Your task to perform on an android device: open app "Airtel Thanks" Image 0: 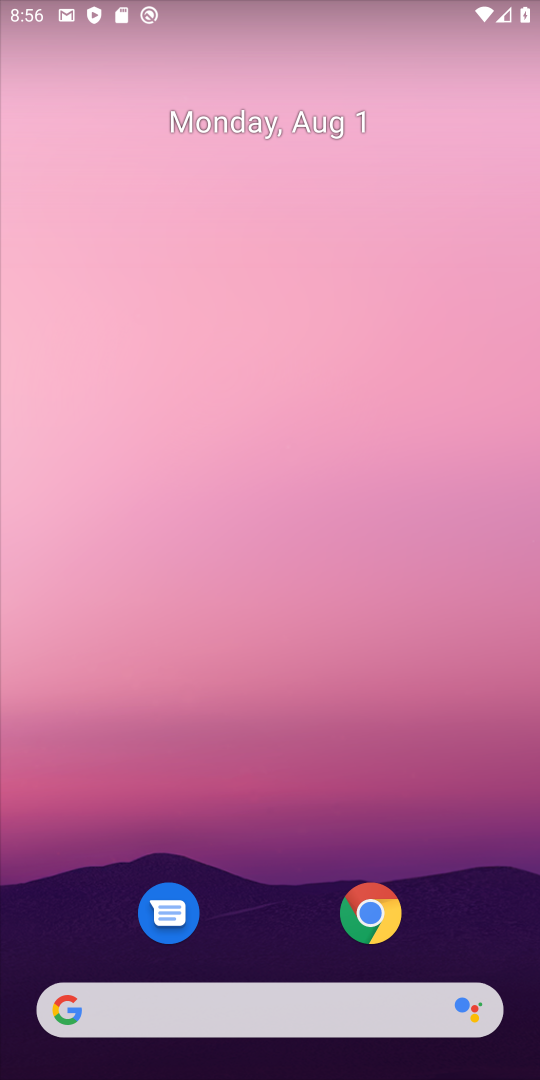
Step 0: press home button
Your task to perform on an android device: open app "Airtel Thanks" Image 1: 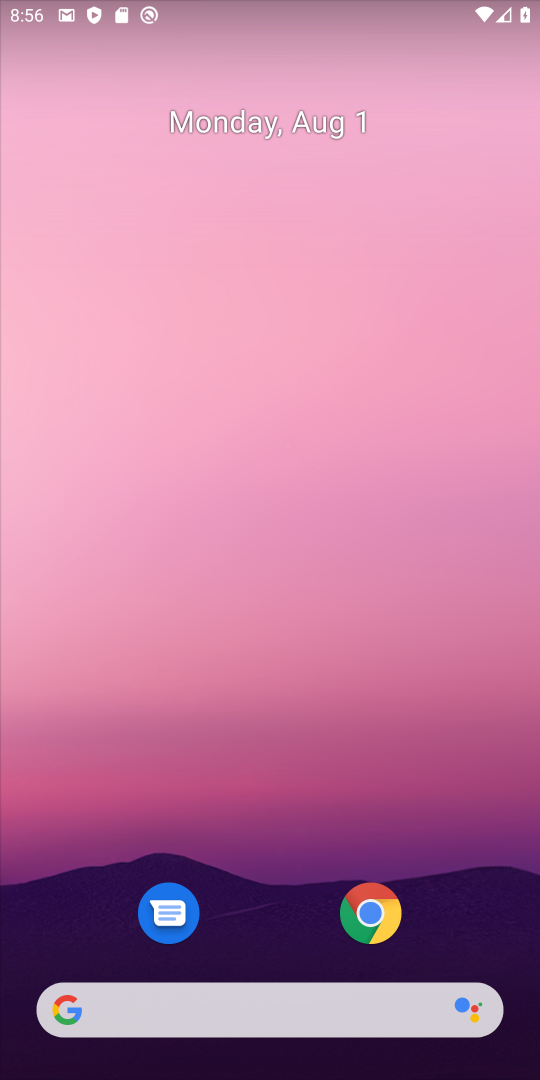
Step 1: drag from (260, 928) to (231, 236)
Your task to perform on an android device: open app "Airtel Thanks" Image 2: 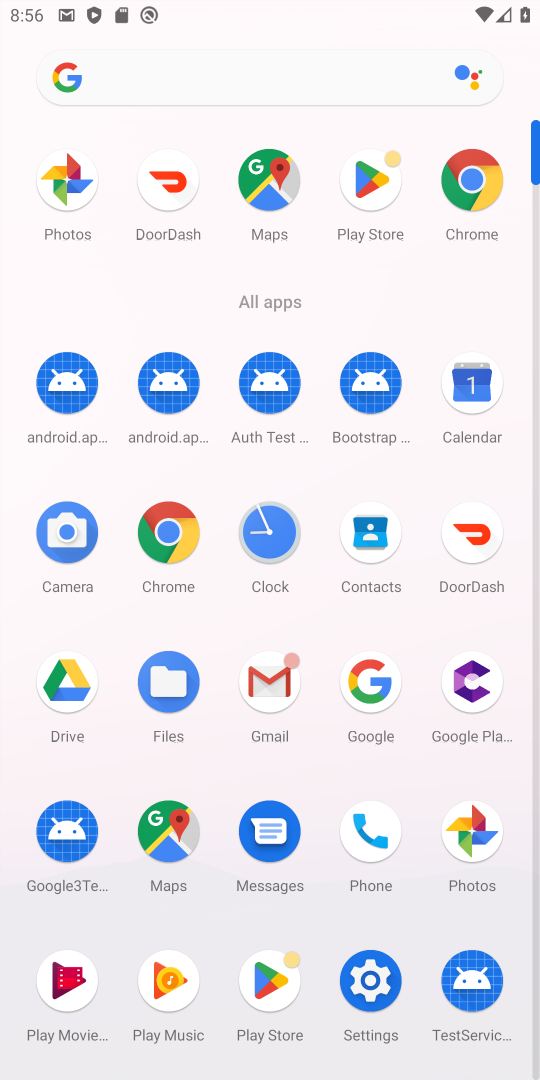
Step 2: click (370, 196)
Your task to perform on an android device: open app "Airtel Thanks" Image 3: 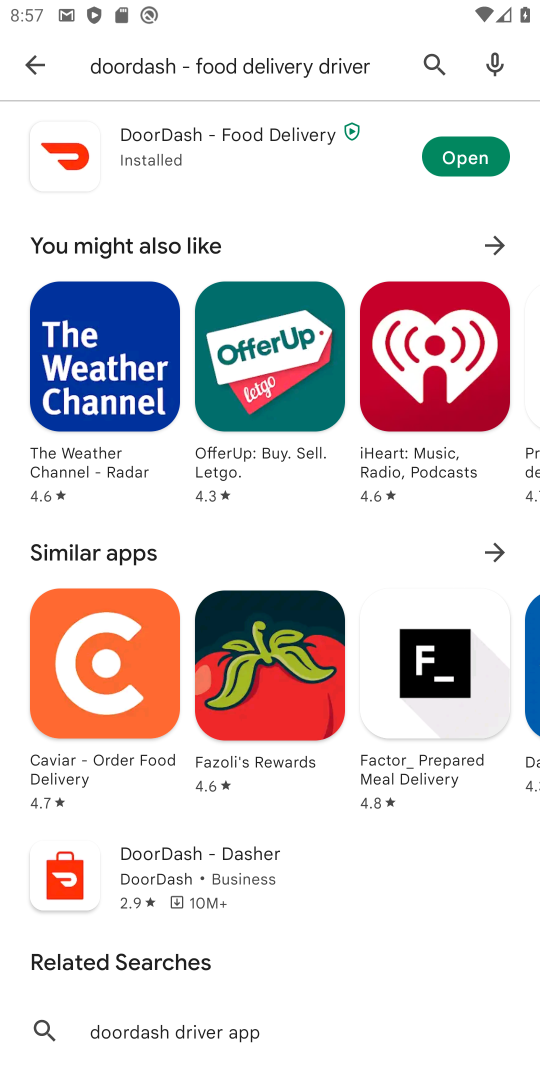
Step 3: click (443, 58)
Your task to perform on an android device: open app "Airtel Thanks" Image 4: 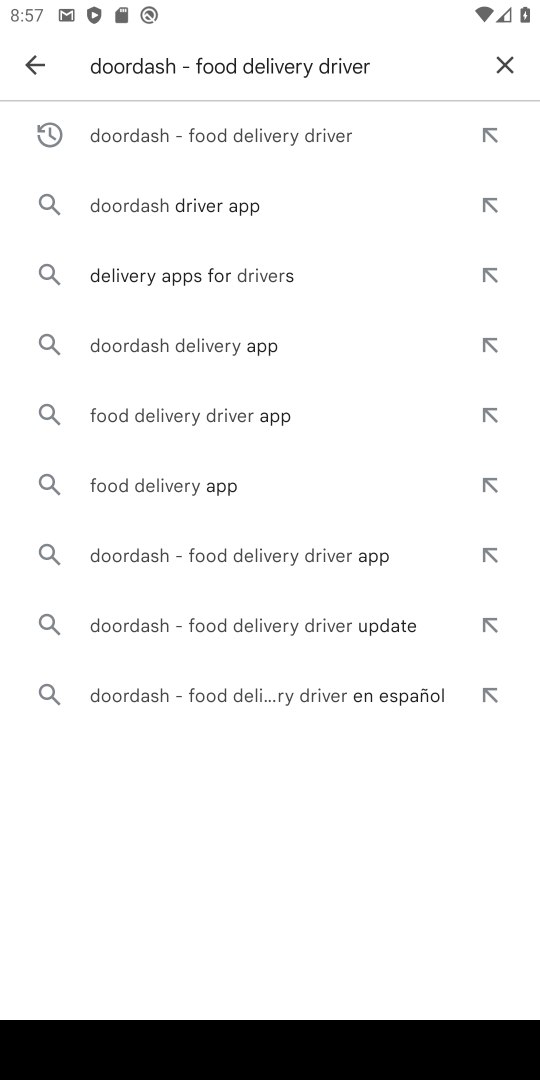
Step 4: click (511, 57)
Your task to perform on an android device: open app "Airtel Thanks" Image 5: 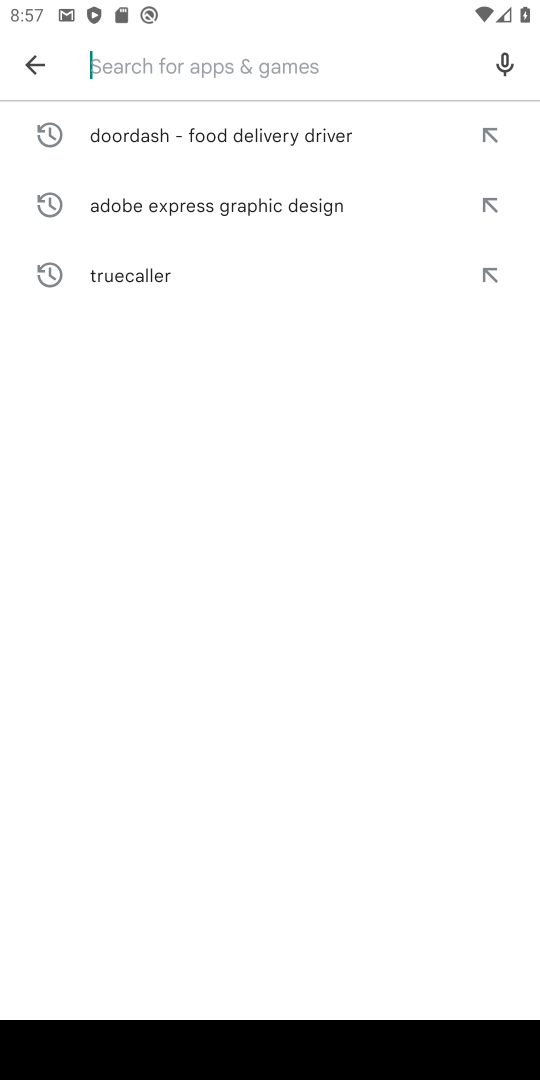
Step 5: type "Airtel Thanks"
Your task to perform on an android device: open app "Airtel Thanks" Image 6: 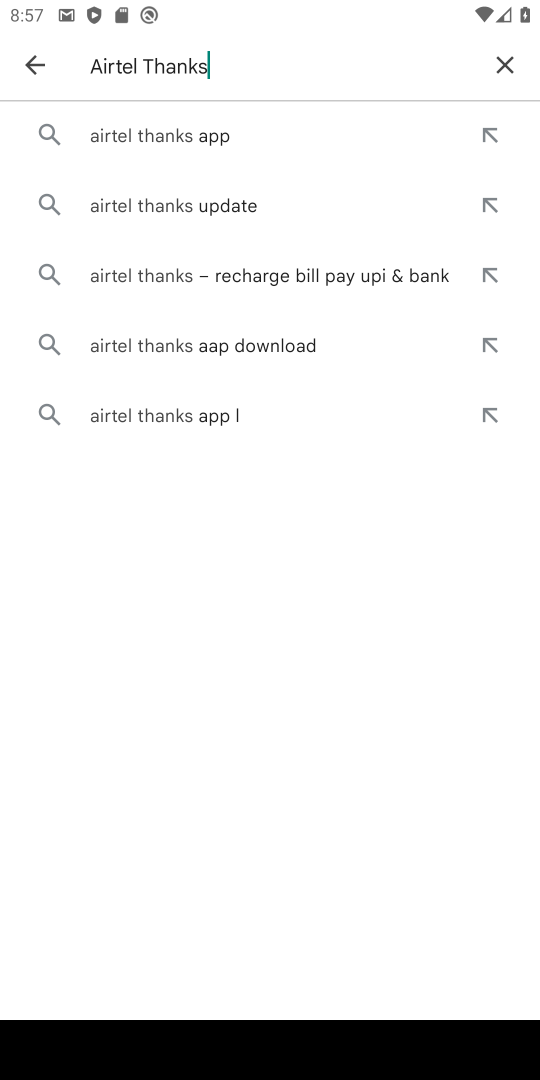
Step 6: click (178, 138)
Your task to perform on an android device: open app "Airtel Thanks" Image 7: 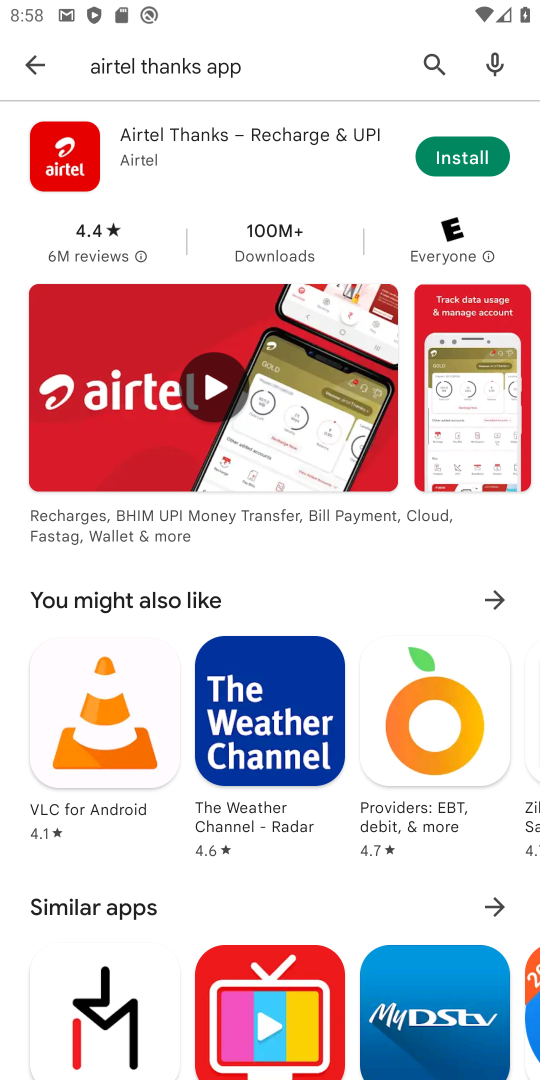
Step 7: task complete